Your task to perform on an android device: turn on javascript in the chrome app Image 0: 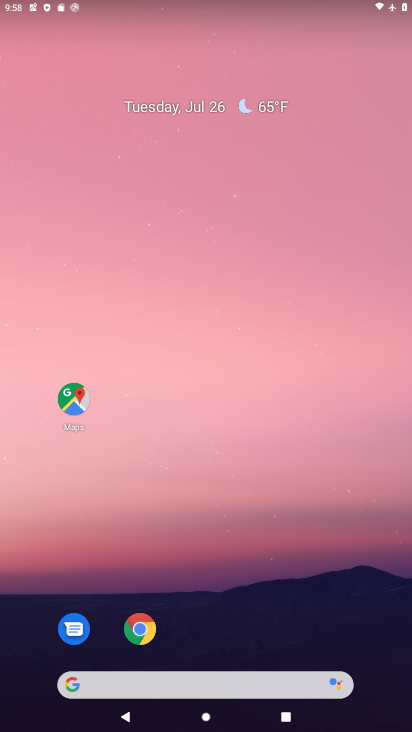
Step 0: drag from (302, 615) to (293, 97)
Your task to perform on an android device: turn on javascript in the chrome app Image 1: 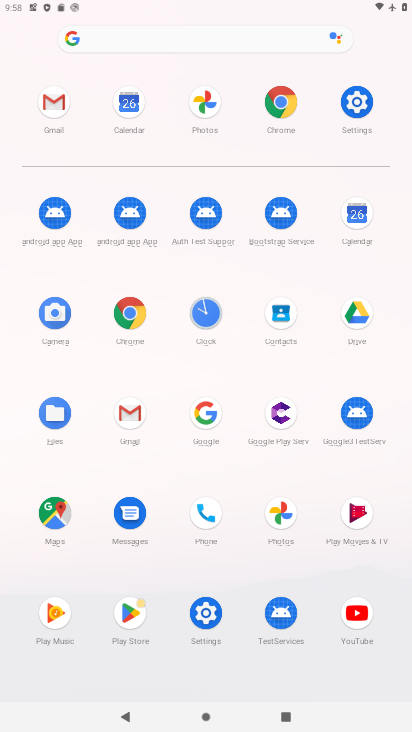
Step 1: click (128, 315)
Your task to perform on an android device: turn on javascript in the chrome app Image 2: 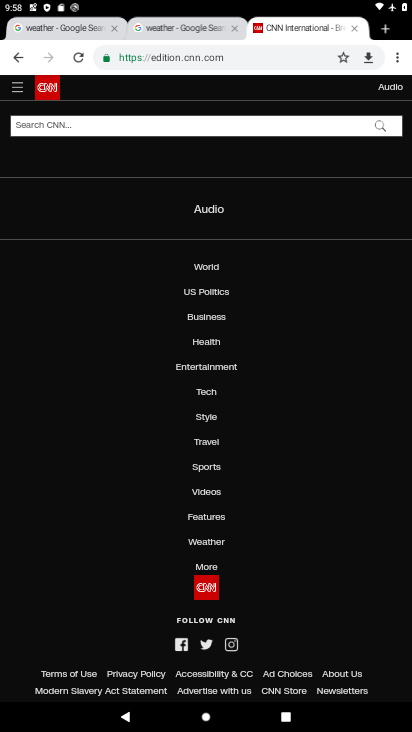
Step 2: drag from (400, 54) to (295, 371)
Your task to perform on an android device: turn on javascript in the chrome app Image 3: 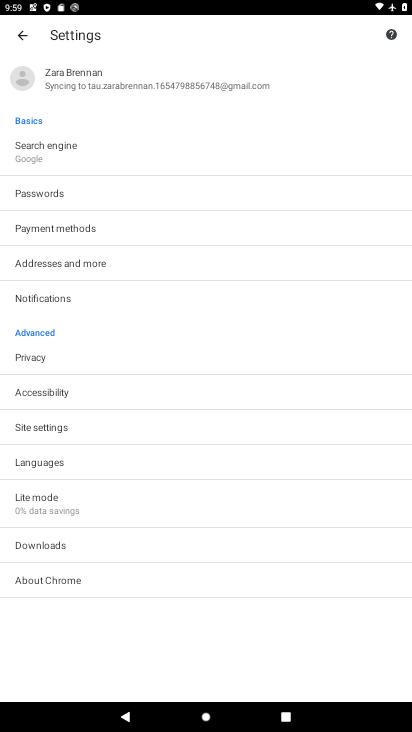
Step 3: click (56, 433)
Your task to perform on an android device: turn on javascript in the chrome app Image 4: 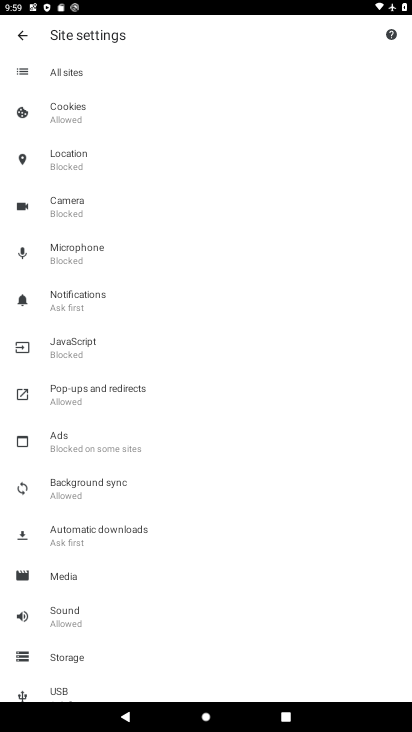
Step 4: click (77, 348)
Your task to perform on an android device: turn on javascript in the chrome app Image 5: 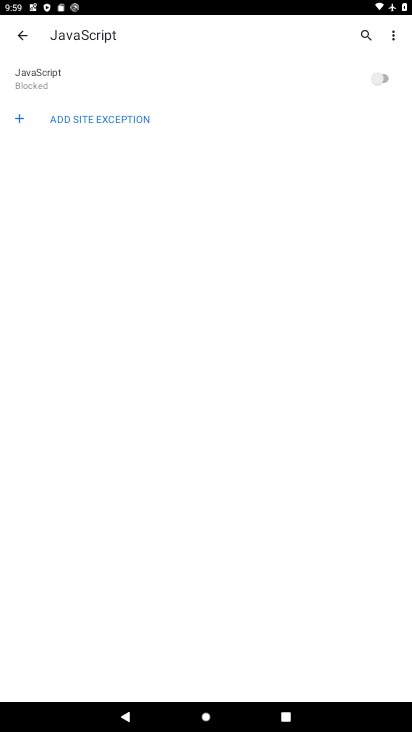
Step 5: click (371, 74)
Your task to perform on an android device: turn on javascript in the chrome app Image 6: 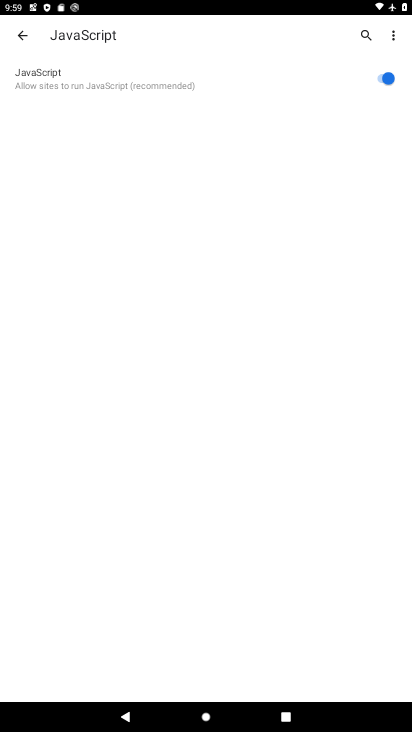
Step 6: task complete